Your task to perform on an android device: install app "Adobe Acrobat Reader: Edit PDF" Image 0: 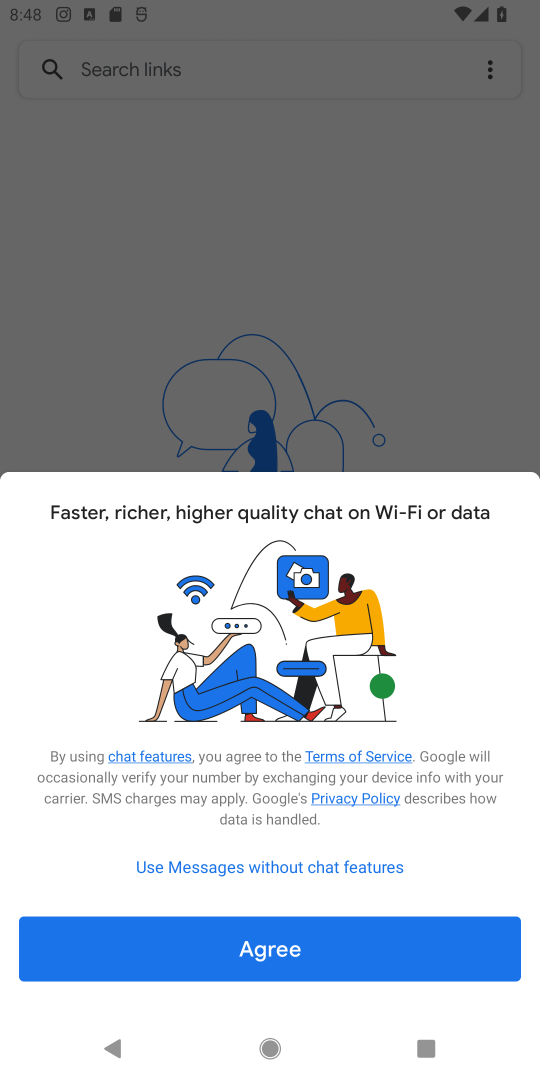
Step 0: press home button
Your task to perform on an android device: install app "Adobe Acrobat Reader: Edit PDF" Image 1: 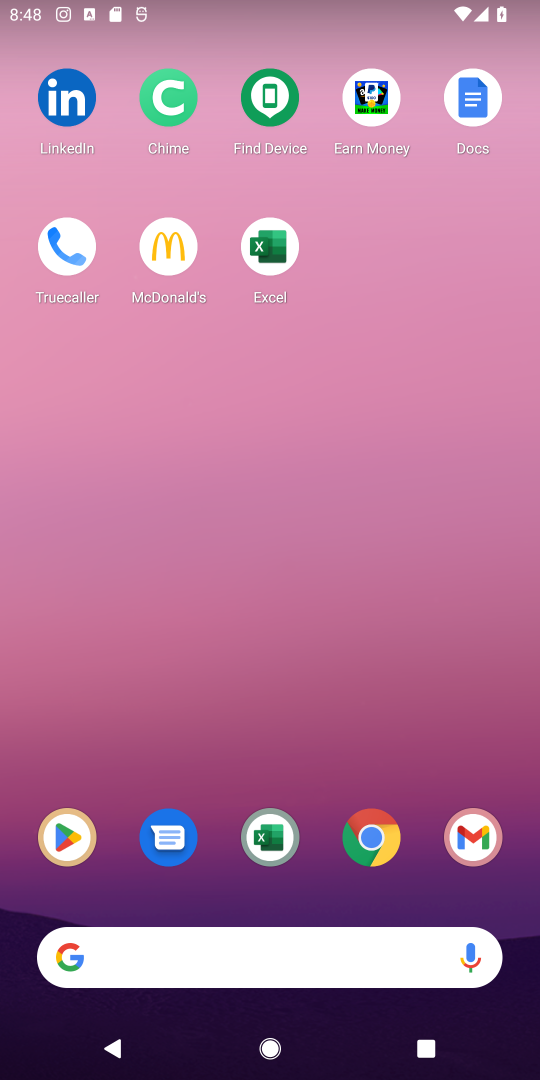
Step 1: click (75, 820)
Your task to perform on an android device: install app "Adobe Acrobat Reader: Edit PDF" Image 2: 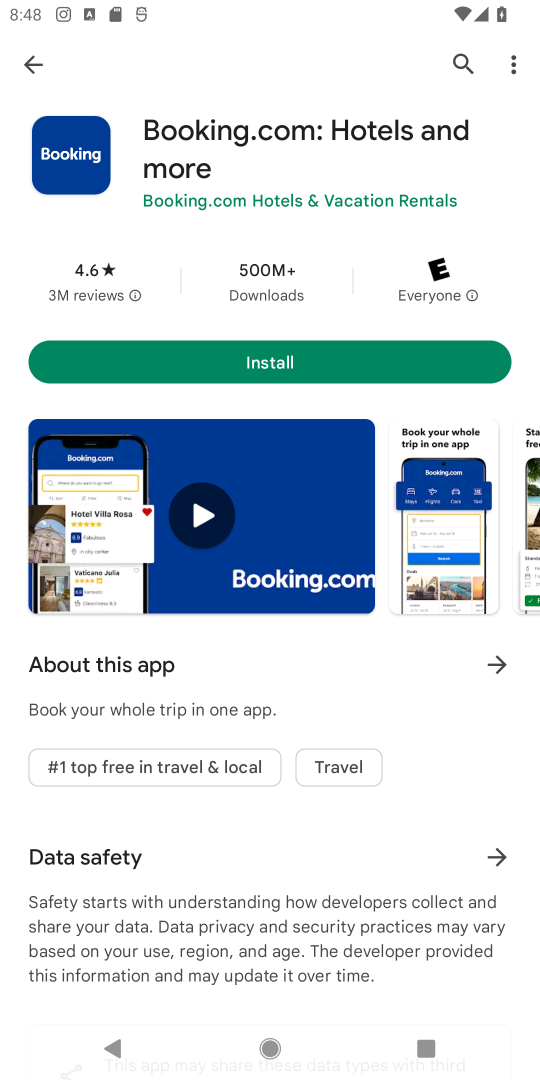
Step 2: click (465, 62)
Your task to perform on an android device: install app "Adobe Acrobat Reader: Edit PDF" Image 3: 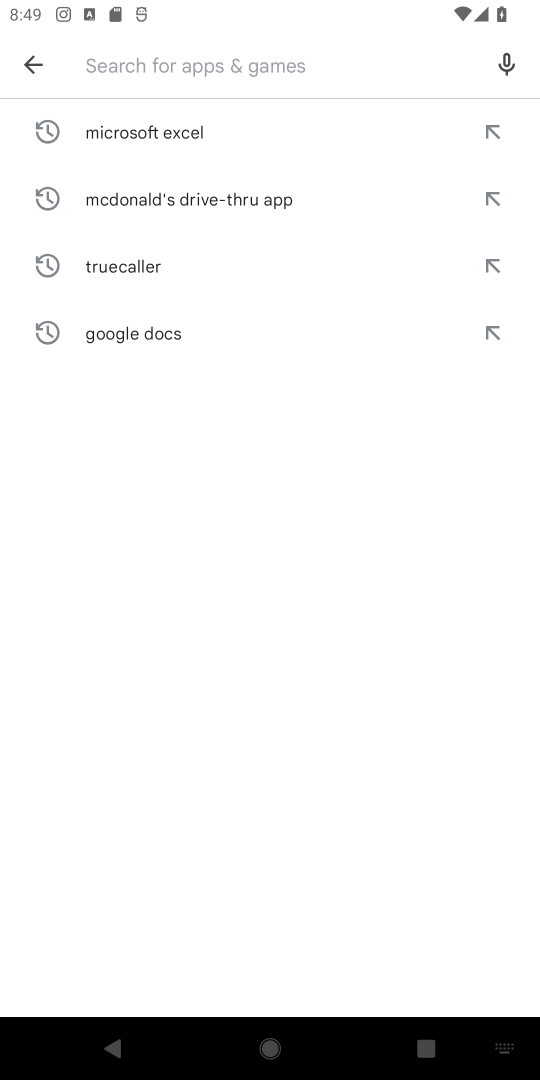
Step 3: type "Adobe Acrobat Reader: Edit PDF"
Your task to perform on an android device: install app "Adobe Acrobat Reader: Edit PDF" Image 4: 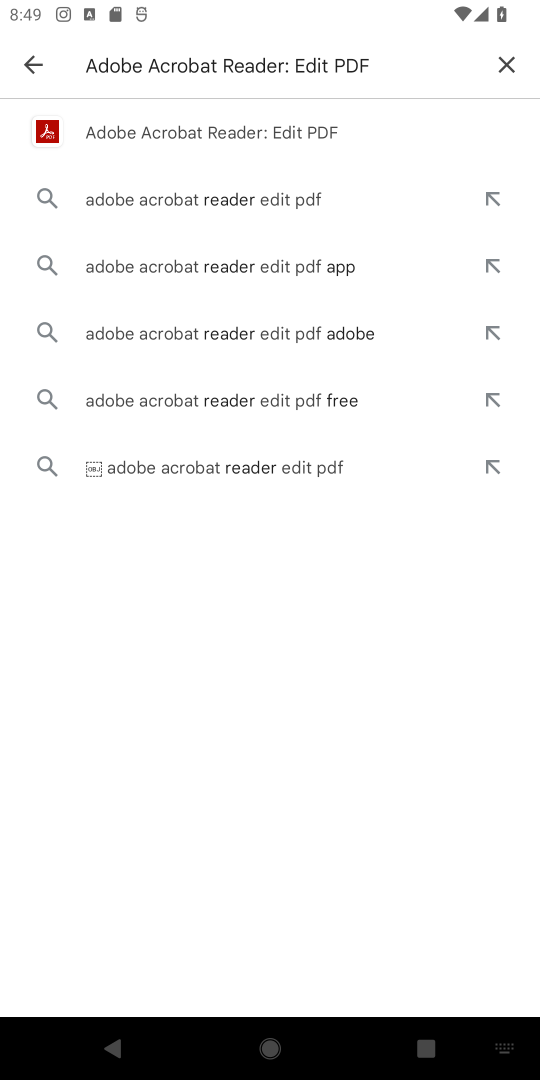
Step 4: click (165, 139)
Your task to perform on an android device: install app "Adobe Acrobat Reader: Edit PDF" Image 5: 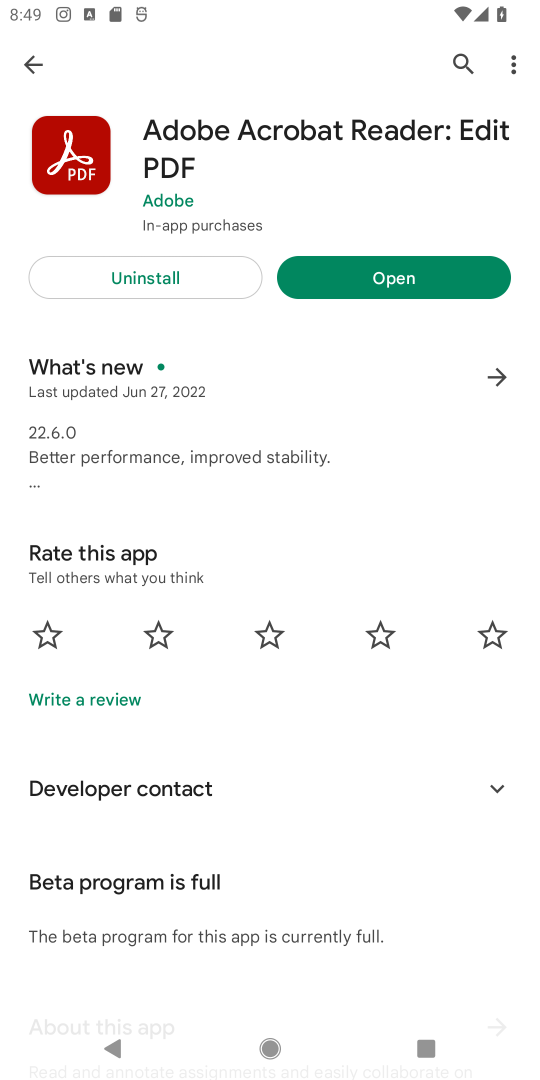
Step 5: task complete